Your task to perform on an android device: Go to sound settings Image 0: 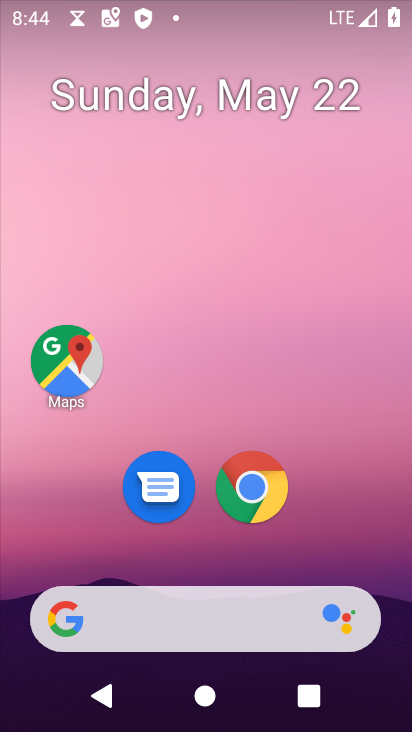
Step 0: drag from (322, 466) to (252, 121)
Your task to perform on an android device: Go to sound settings Image 1: 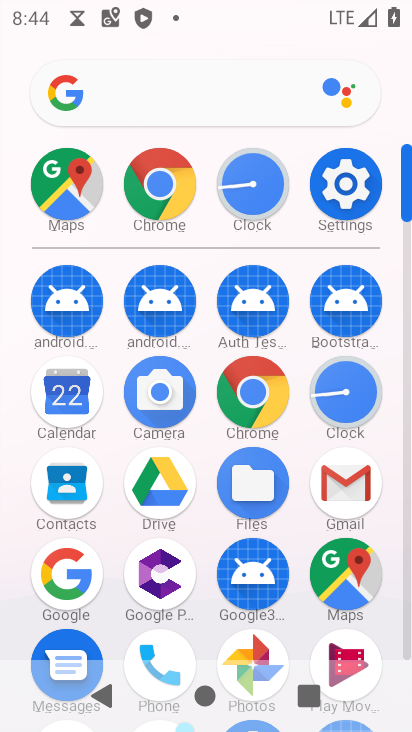
Step 1: click (366, 198)
Your task to perform on an android device: Go to sound settings Image 2: 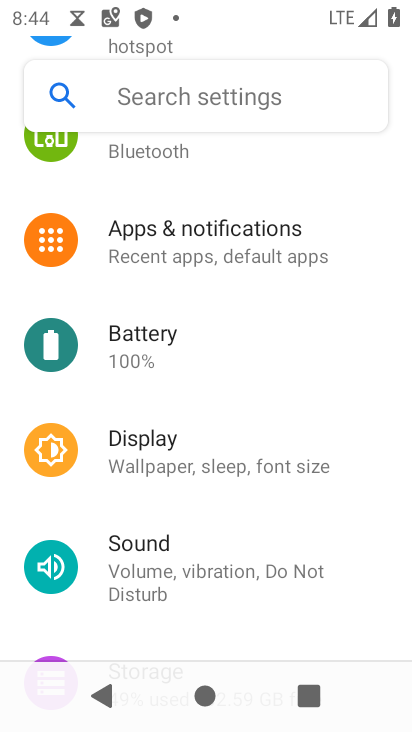
Step 2: click (165, 569)
Your task to perform on an android device: Go to sound settings Image 3: 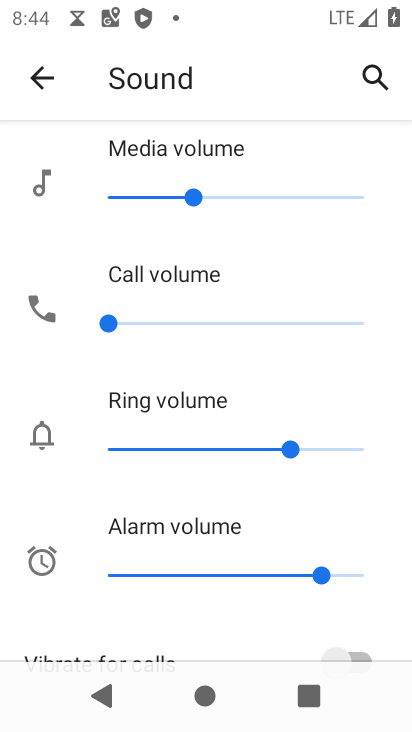
Step 3: task complete